Your task to perform on an android device: toggle translation in the chrome app Image 0: 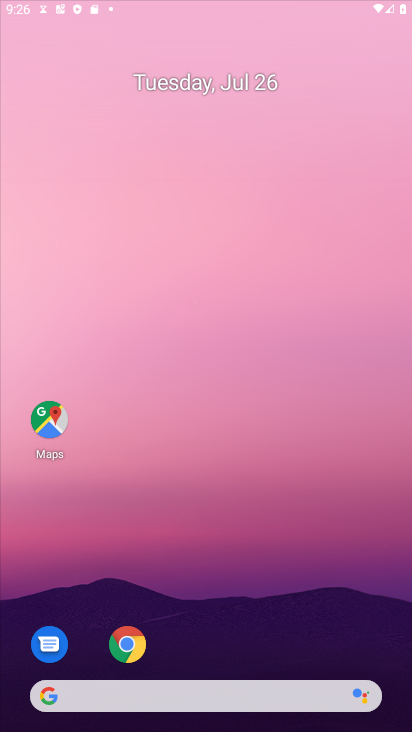
Step 0: click (224, 346)
Your task to perform on an android device: toggle translation in the chrome app Image 1: 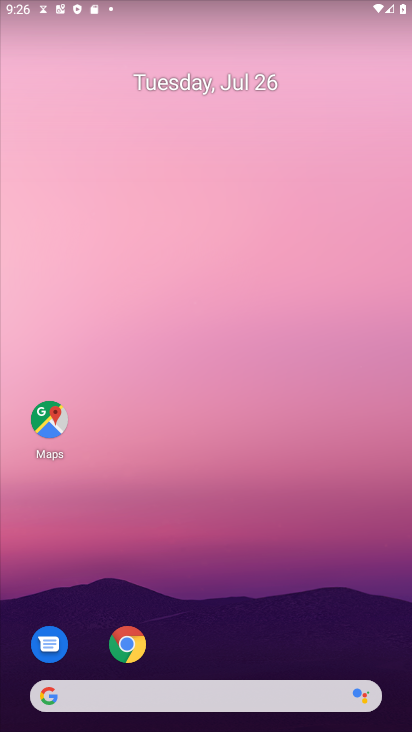
Step 1: drag from (210, 649) to (187, 43)
Your task to perform on an android device: toggle translation in the chrome app Image 2: 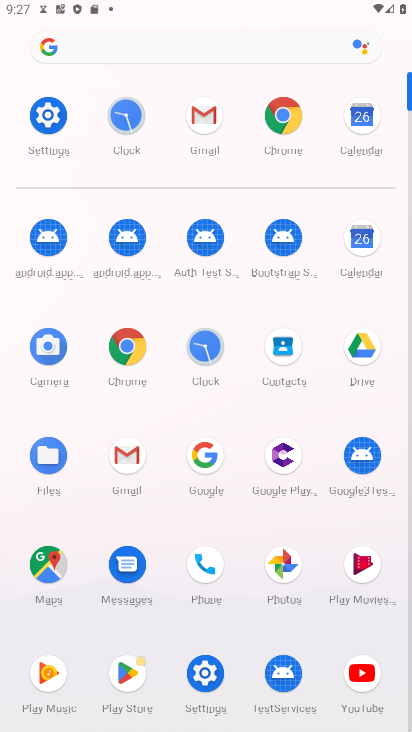
Step 2: click (131, 364)
Your task to perform on an android device: toggle translation in the chrome app Image 3: 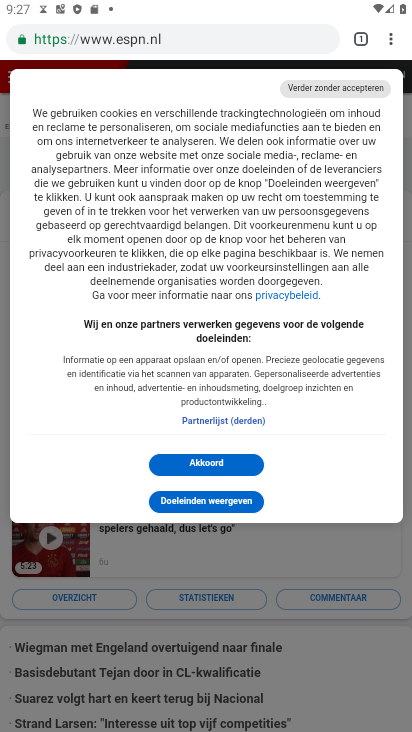
Step 3: click (389, 44)
Your task to perform on an android device: toggle translation in the chrome app Image 4: 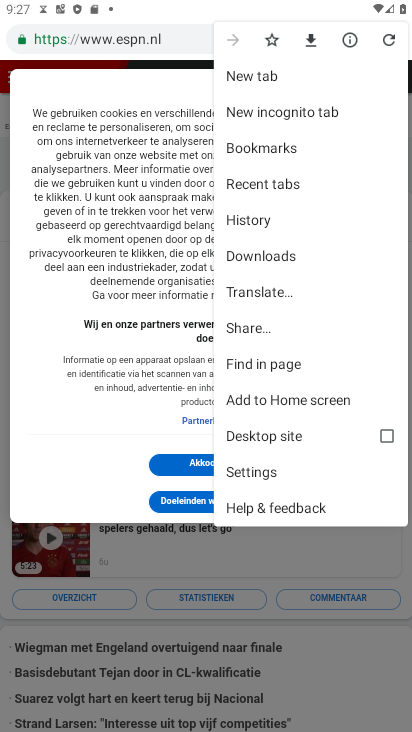
Step 4: click (269, 472)
Your task to perform on an android device: toggle translation in the chrome app Image 5: 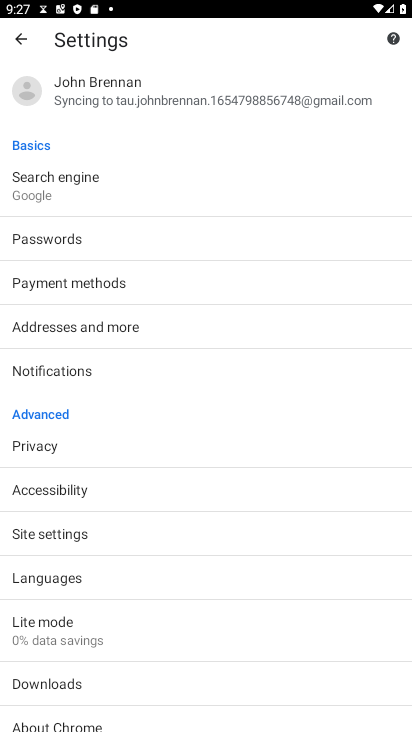
Step 5: click (70, 577)
Your task to perform on an android device: toggle translation in the chrome app Image 6: 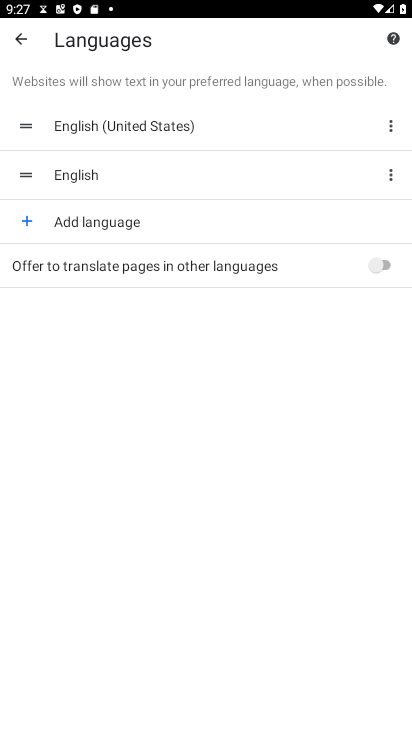
Step 6: click (388, 264)
Your task to perform on an android device: toggle translation in the chrome app Image 7: 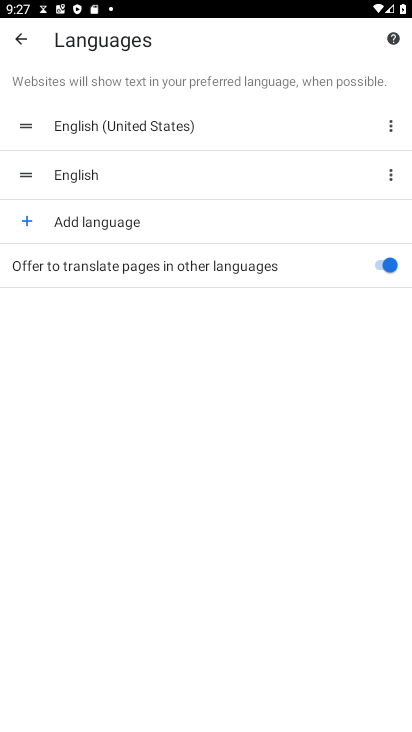
Step 7: task complete